Your task to perform on an android device: open app "The Home Depot" Image 0: 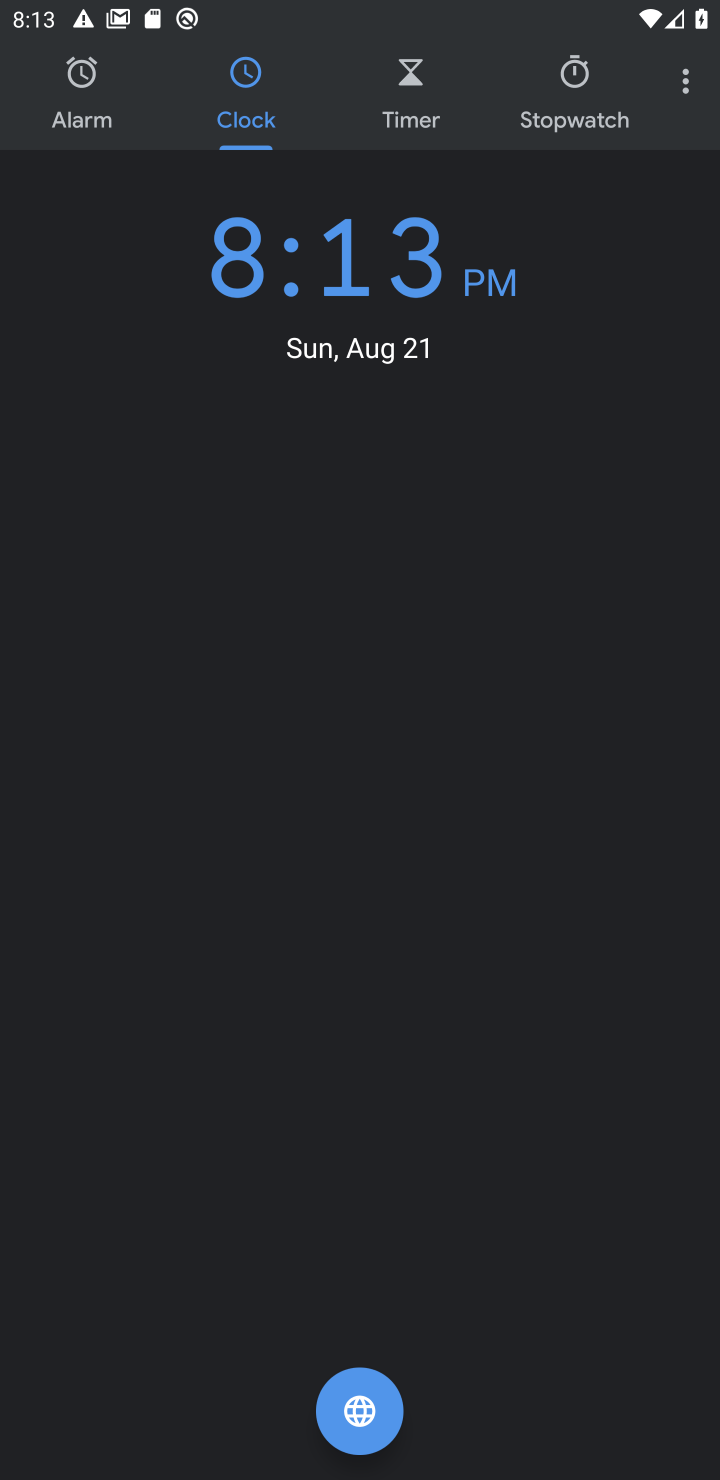
Step 0: press home button
Your task to perform on an android device: open app "The Home Depot" Image 1: 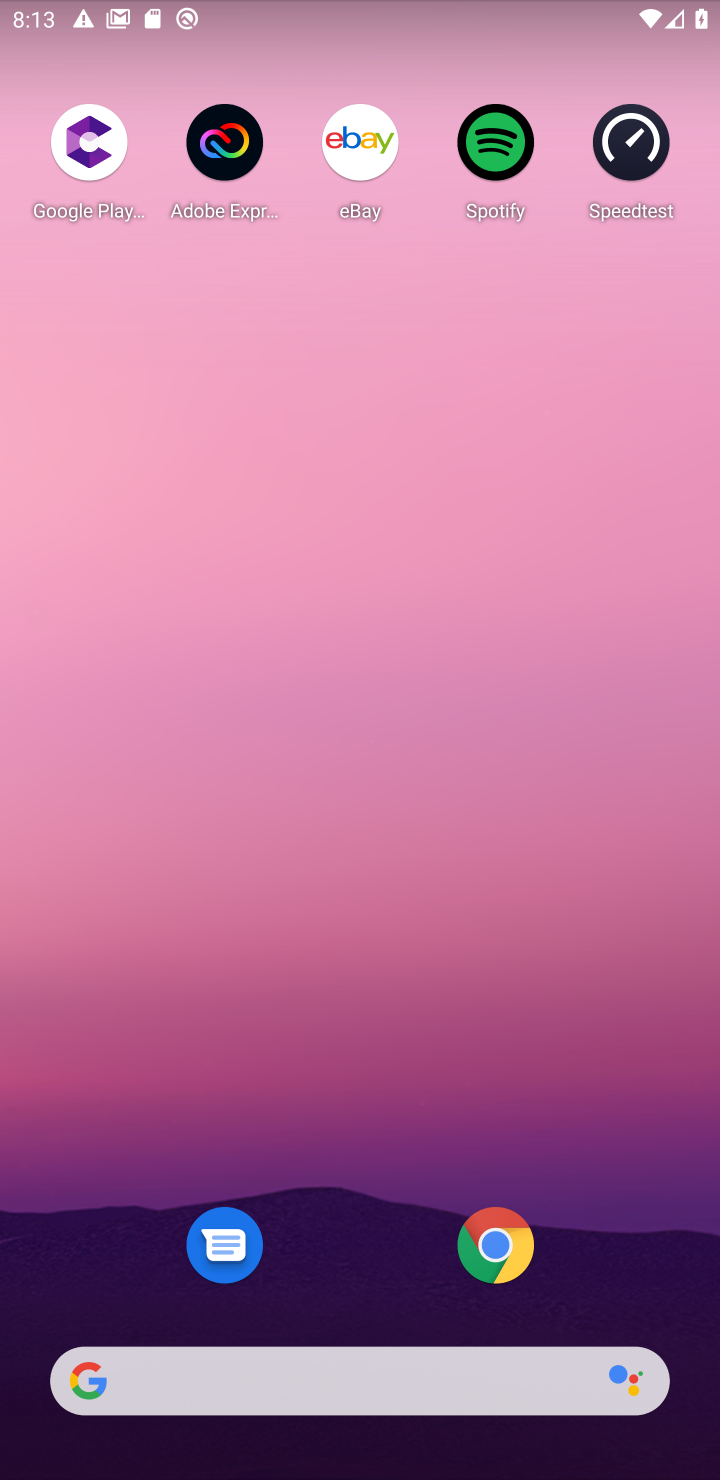
Step 1: drag from (350, 1322) to (191, 154)
Your task to perform on an android device: open app "The Home Depot" Image 2: 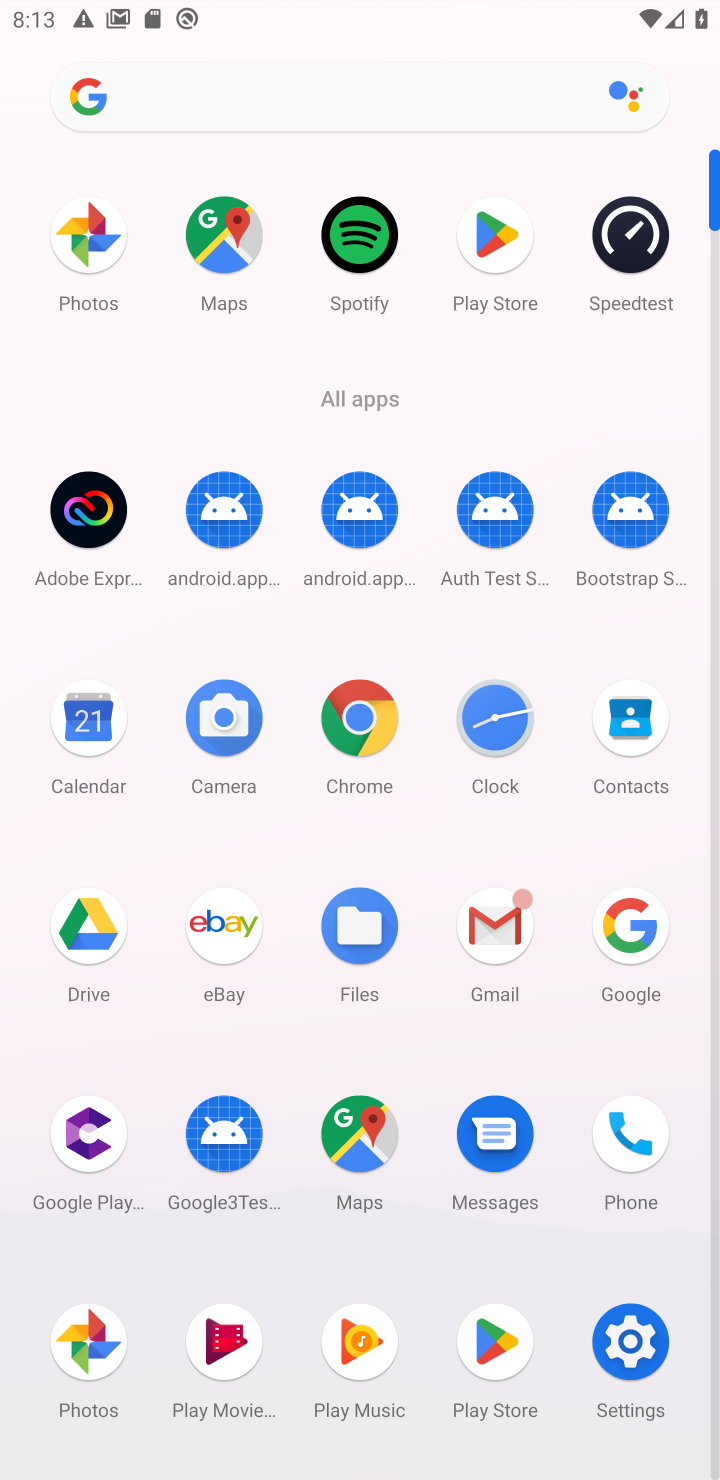
Step 2: click (502, 1349)
Your task to perform on an android device: open app "The Home Depot" Image 3: 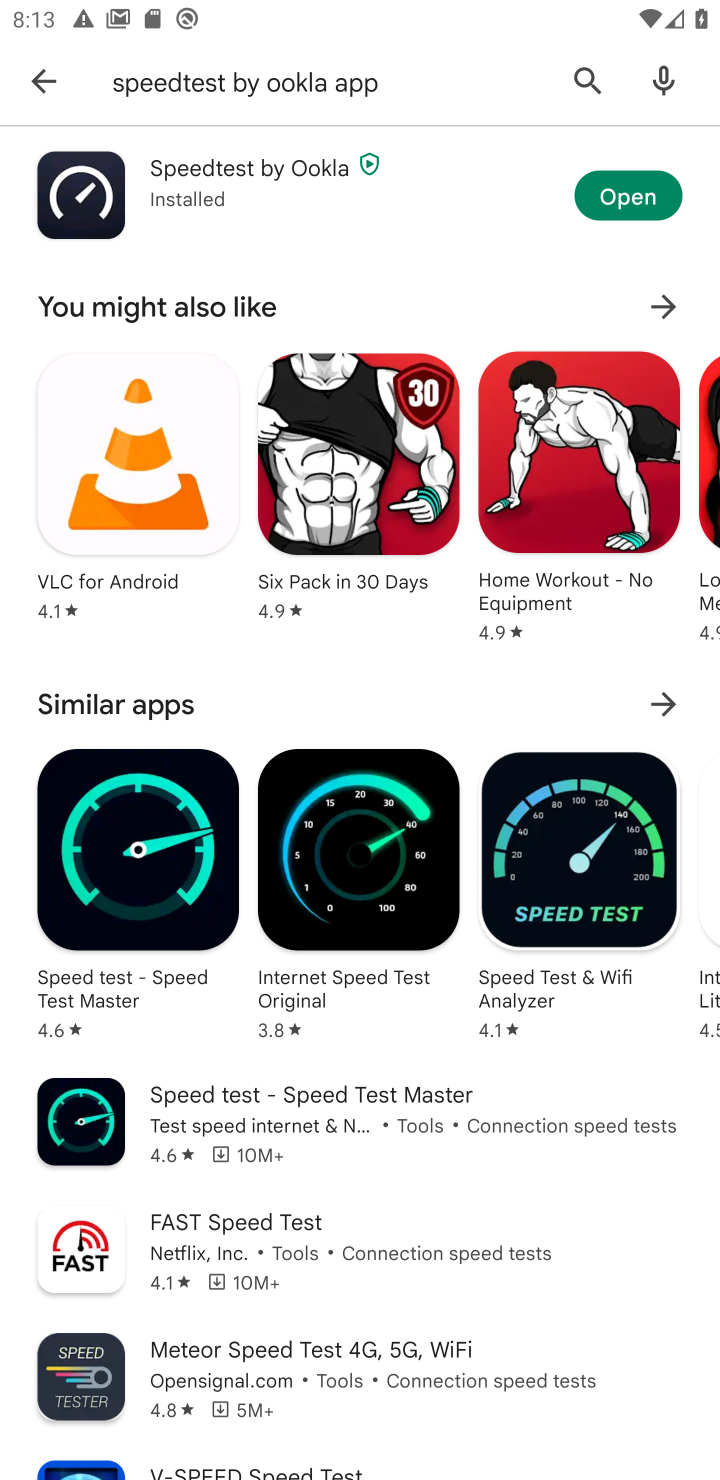
Step 3: click (22, 74)
Your task to perform on an android device: open app "The Home Depot" Image 4: 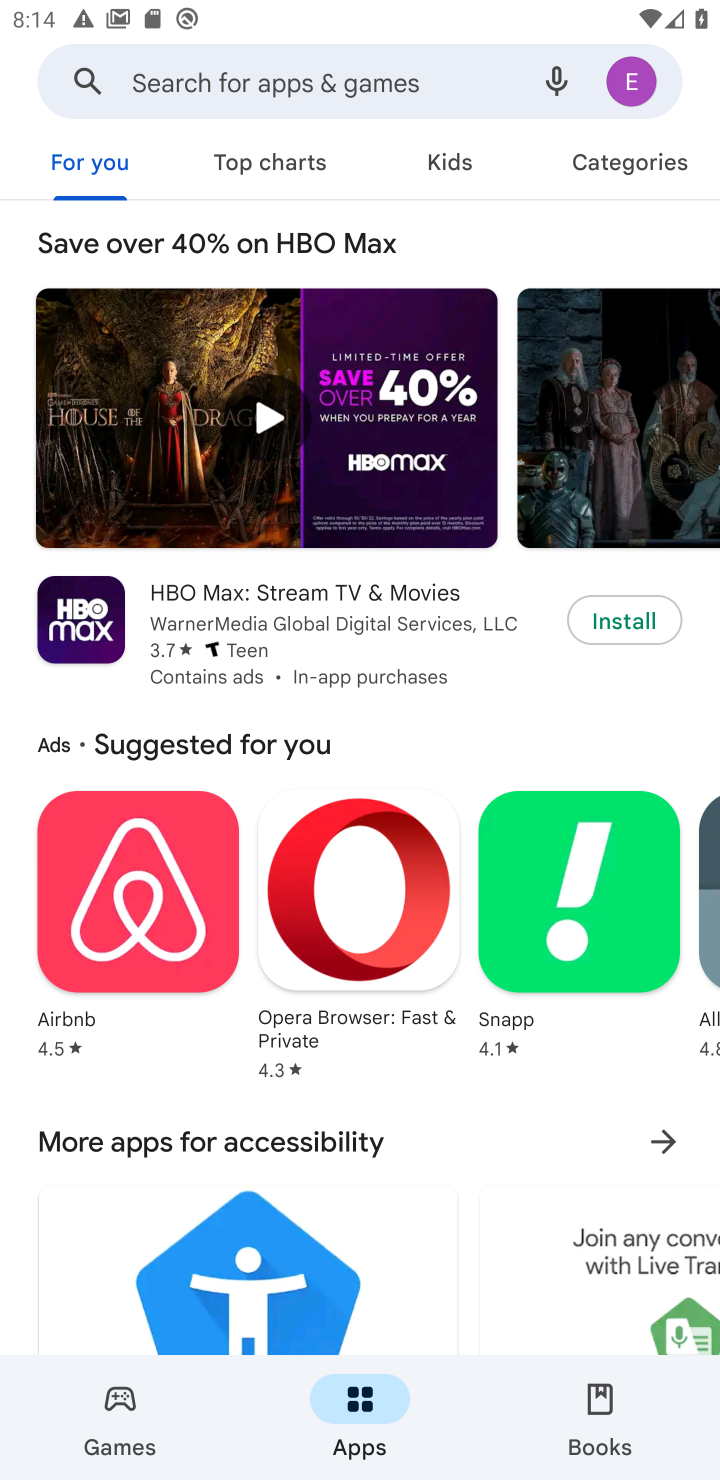
Step 4: click (194, 101)
Your task to perform on an android device: open app "The Home Depot" Image 5: 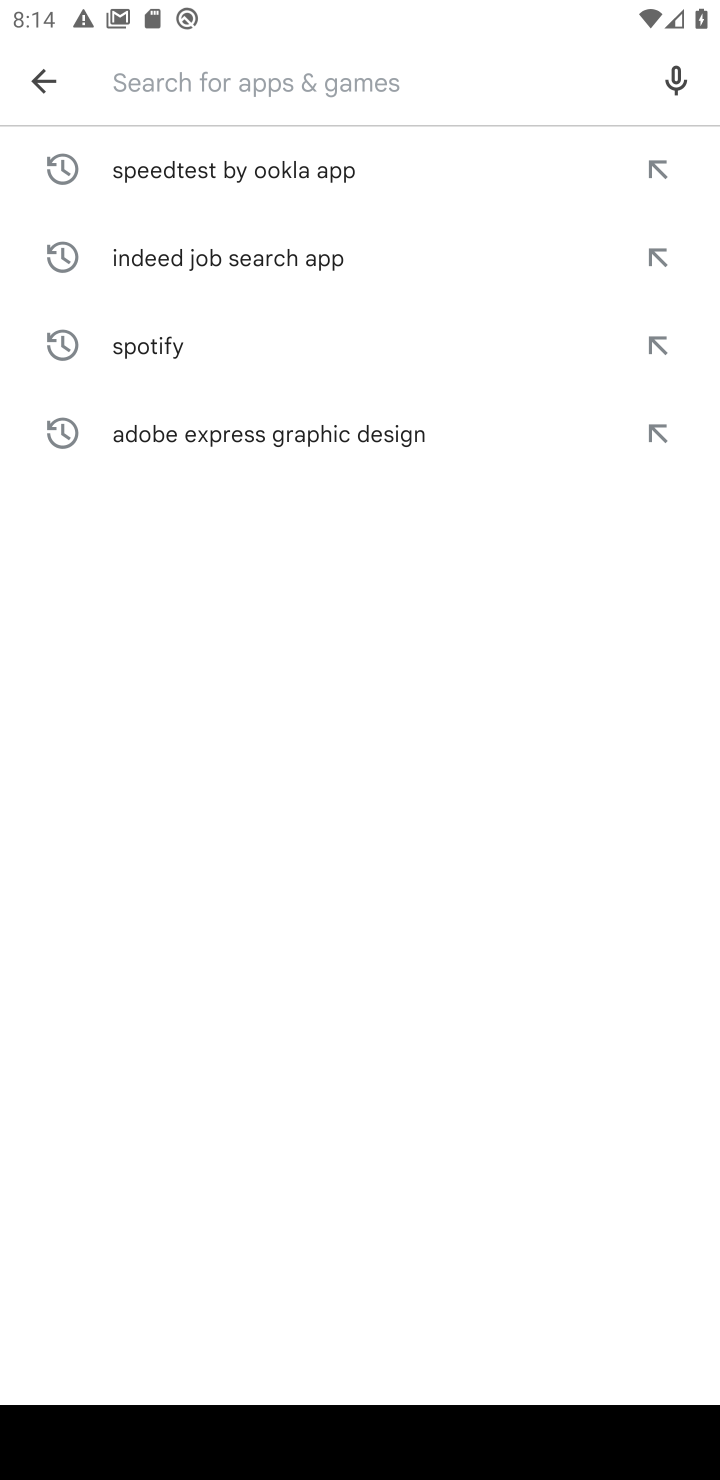
Step 5: type "The Home Depot"
Your task to perform on an android device: open app "The Home Depot" Image 6: 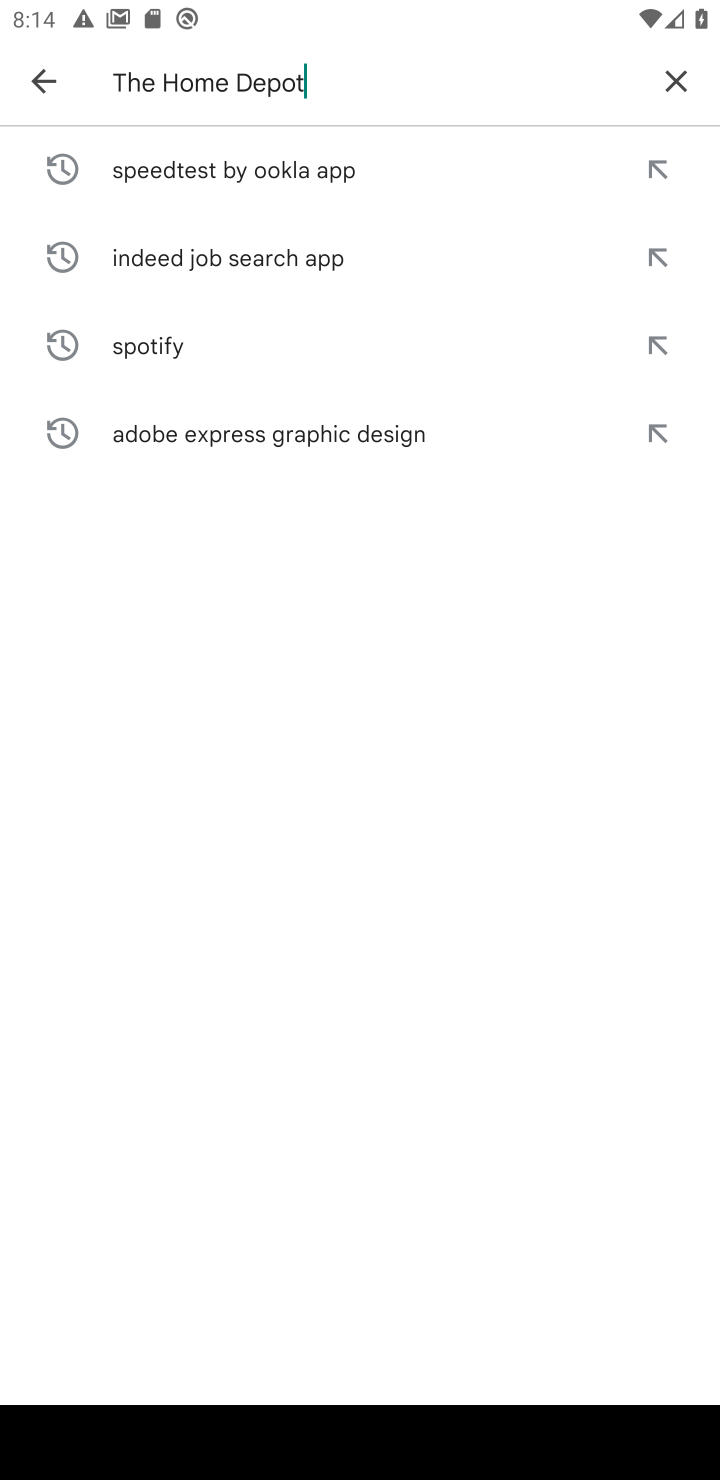
Step 6: type ""
Your task to perform on an android device: open app "The Home Depot" Image 7: 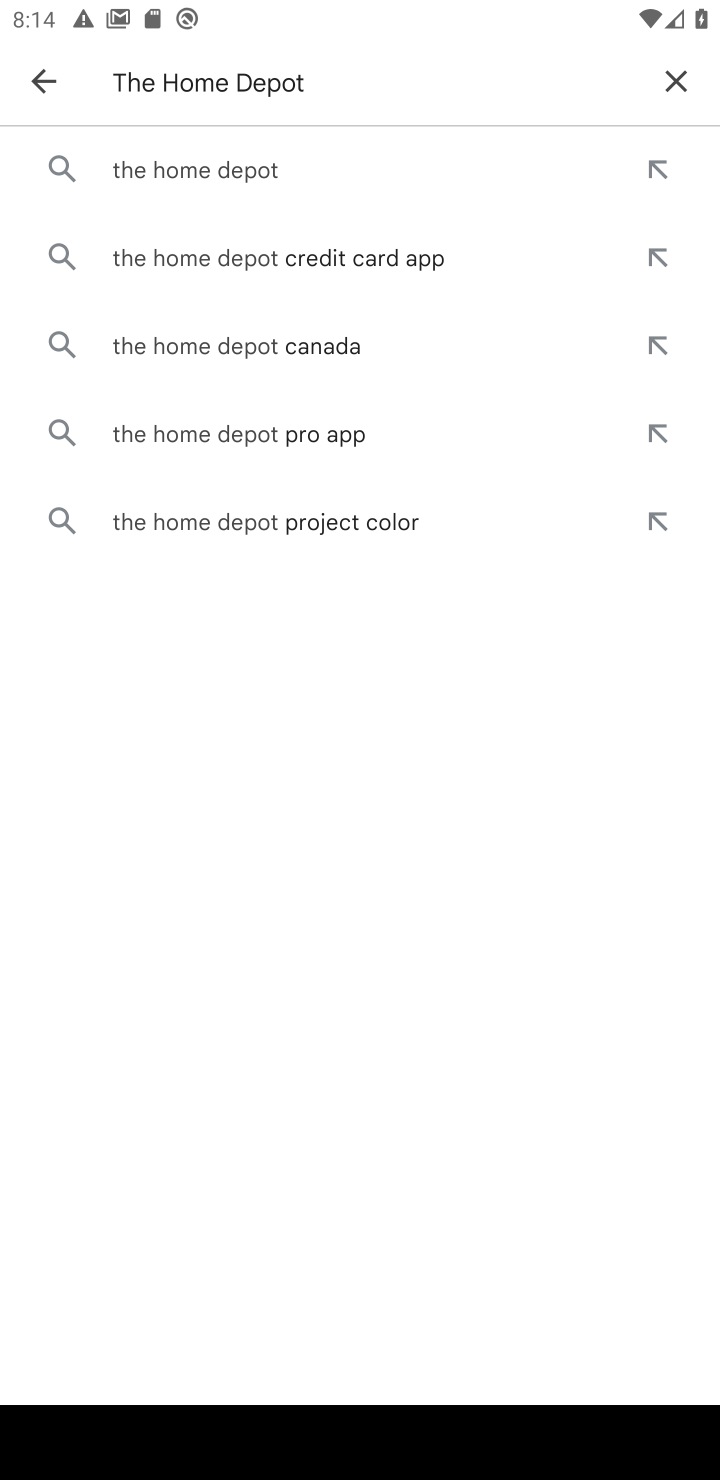
Step 7: click (173, 175)
Your task to perform on an android device: open app "The Home Depot" Image 8: 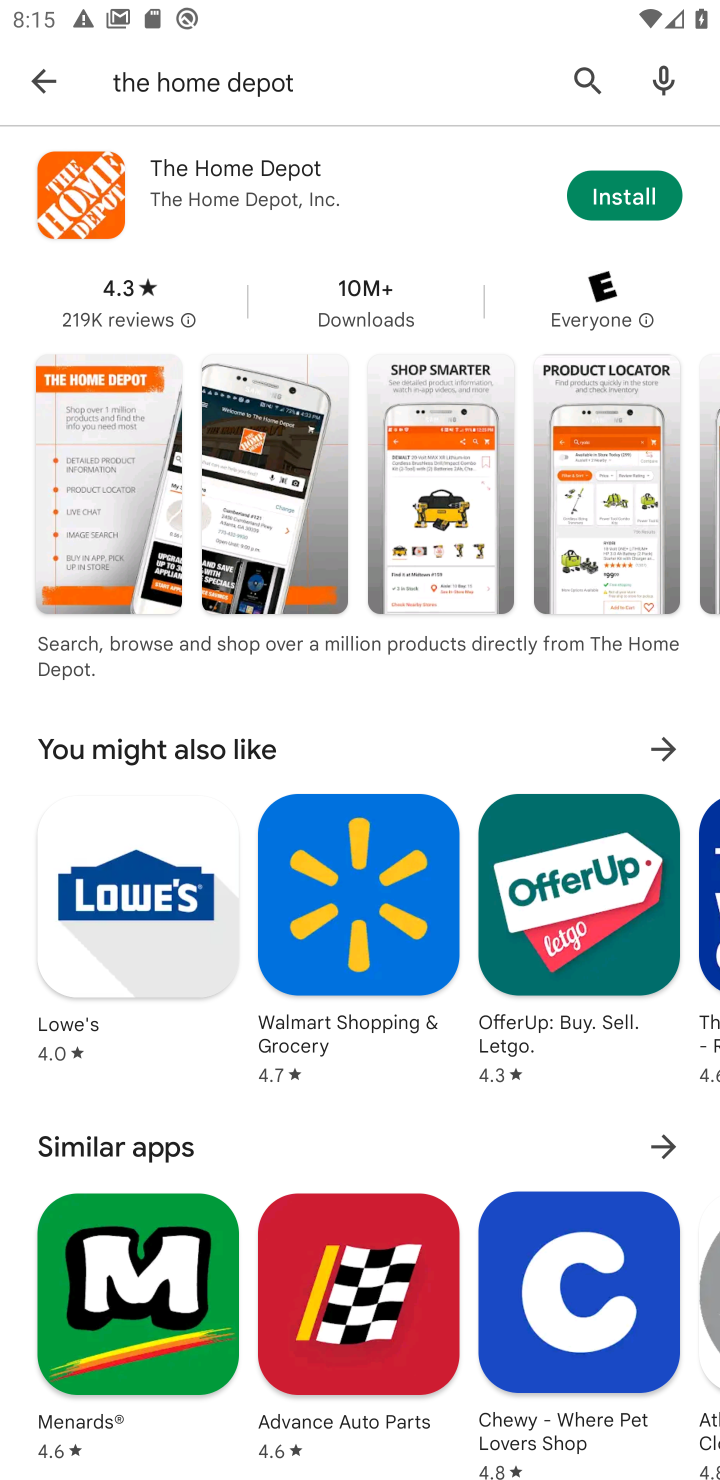
Step 8: task complete